Your task to perform on an android device: What is the news today? Image 0: 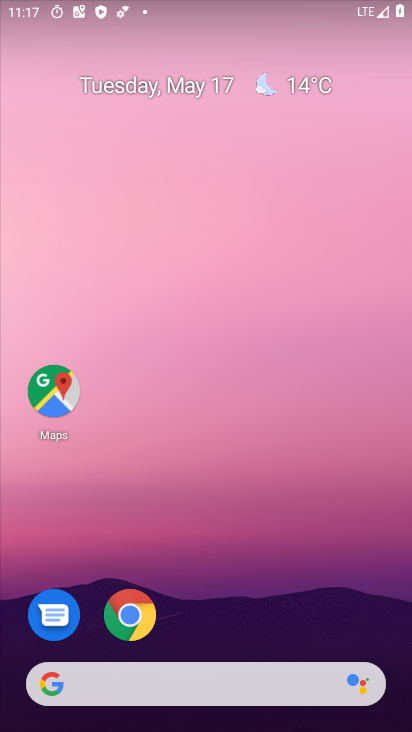
Step 0: press home button
Your task to perform on an android device: What is the news today? Image 1: 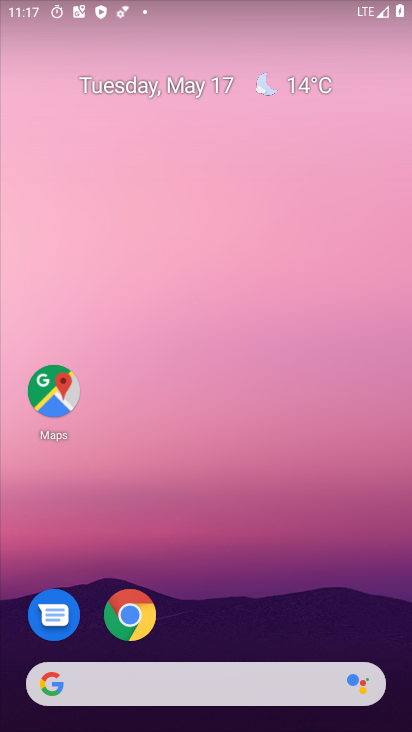
Step 1: click (59, 690)
Your task to perform on an android device: What is the news today? Image 2: 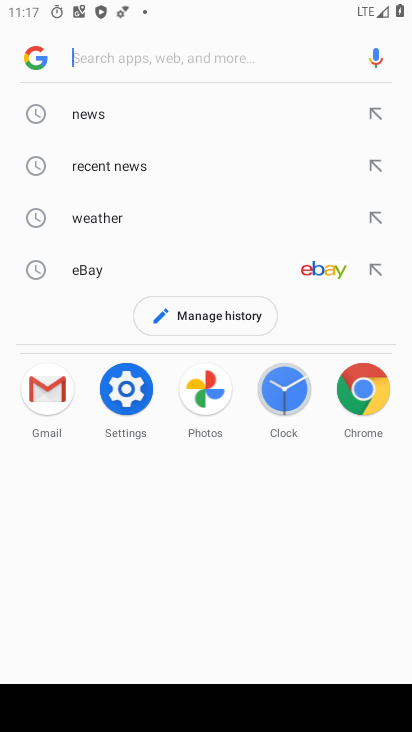
Step 2: click (83, 113)
Your task to perform on an android device: What is the news today? Image 3: 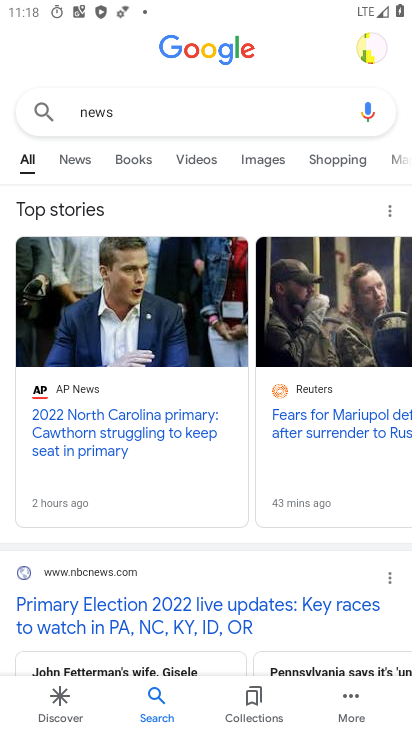
Step 3: click (86, 164)
Your task to perform on an android device: What is the news today? Image 4: 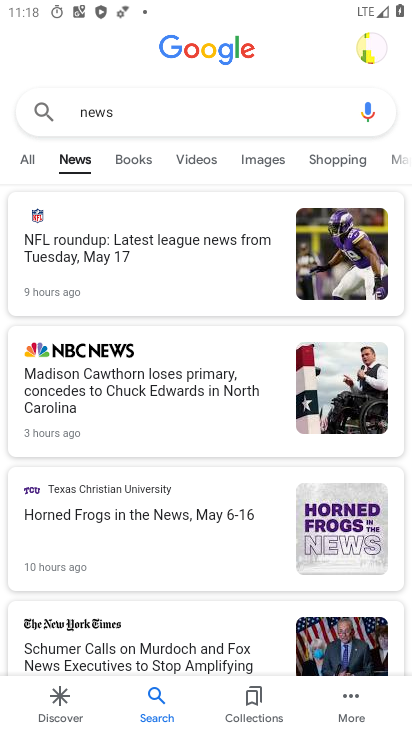
Step 4: task complete